Your task to perform on an android device: change text size in settings app Image 0: 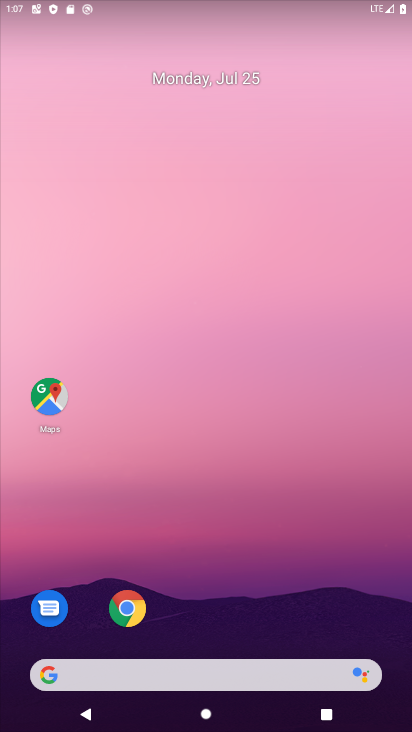
Step 0: drag from (259, 642) to (264, 8)
Your task to perform on an android device: change text size in settings app Image 1: 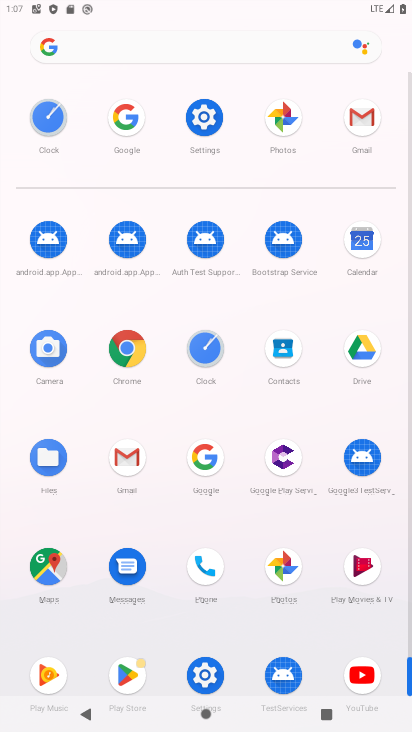
Step 1: click (213, 119)
Your task to perform on an android device: change text size in settings app Image 2: 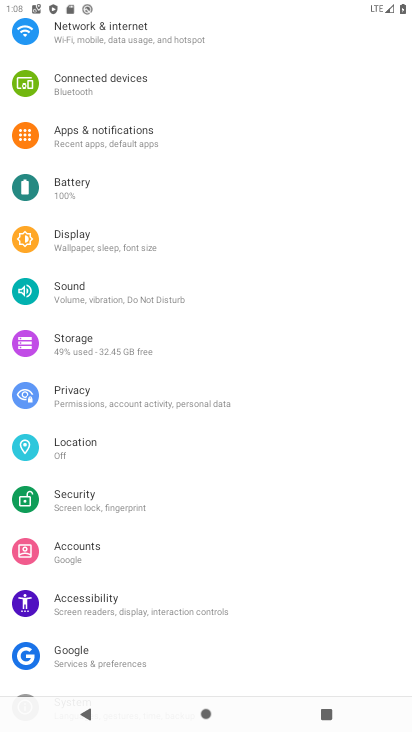
Step 2: click (49, 599)
Your task to perform on an android device: change text size in settings app Image 3: 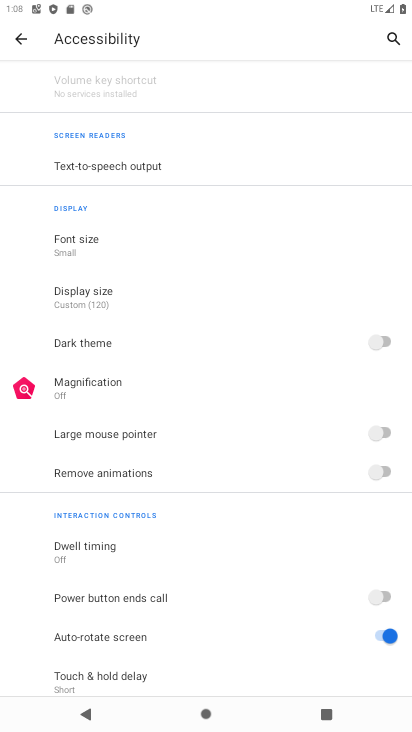
Step 3: click (73, 240)
Your task to perform on an android device: change text size in settings app Image 4: 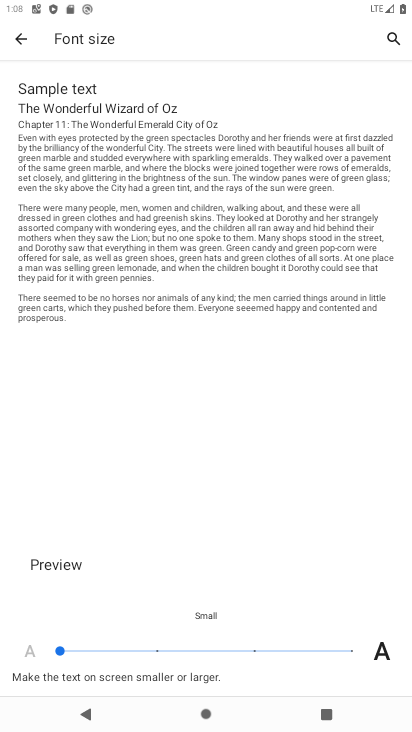
Step 4: click (145, 654)
Your task to perform on an android device: change text size in settings app Image 5: 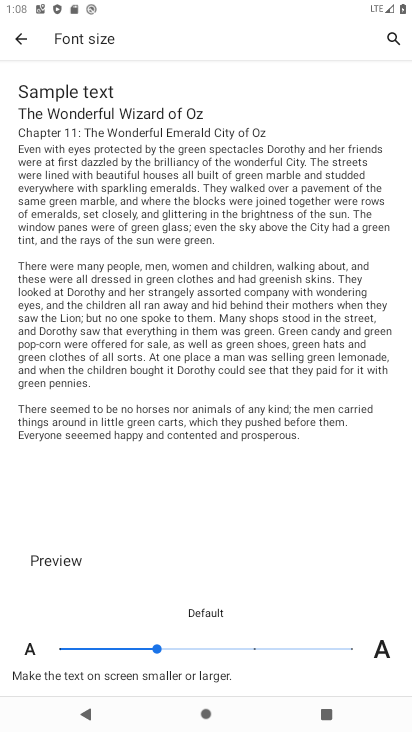
Step 5: click (354, 654)
Your task to perform on an android device: change text size in settings app Image 6: 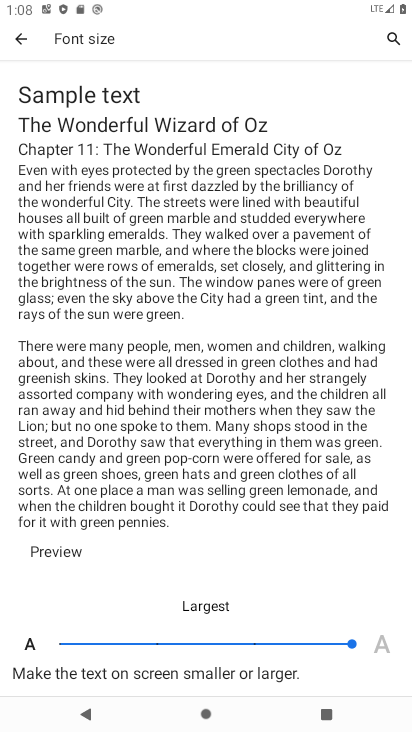
Step 6: task complete